Your task to perform on an android device: refresh tabs in the chrome app Image 0: 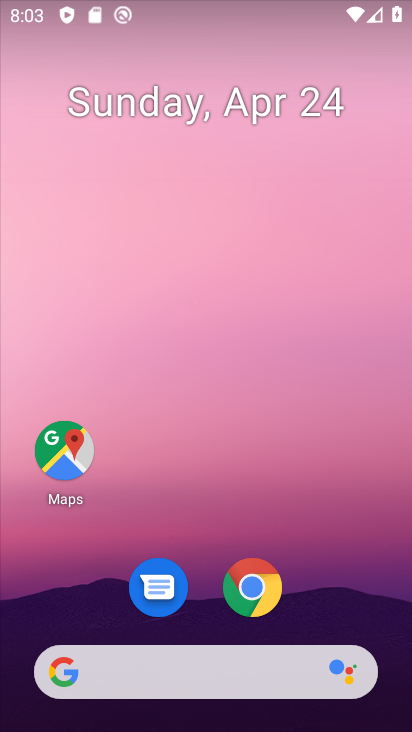
Step 0: drag from (343, 537) to (338, 240)
Your task to perform on an android device: refresh tabs in the chrome app Image 1: 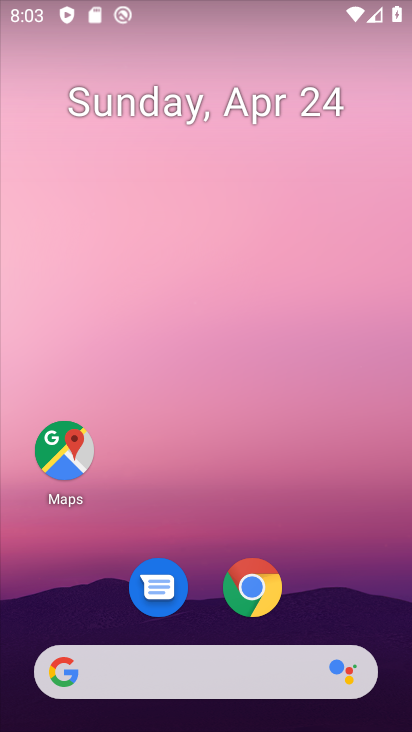
Step 1: drag from (325, 259) to (326, 81)
Your task to perform on an android device: refresh tabs in the chrome app Image 2: 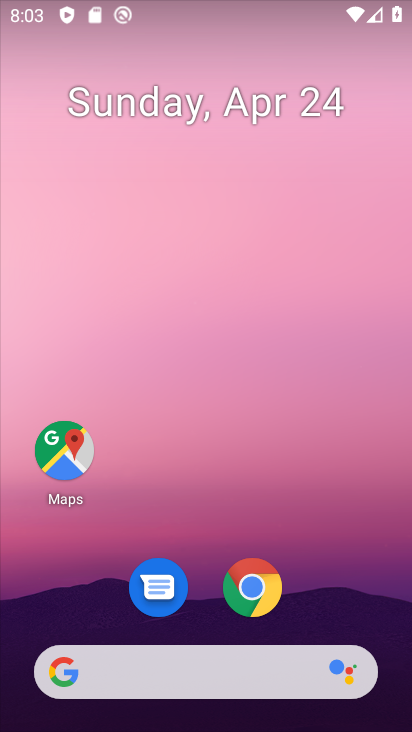
Step 2: drag from (322, 563) to (334, 125)
Your task to perform on an android device: refresh tabs in the chrome app Image 3: 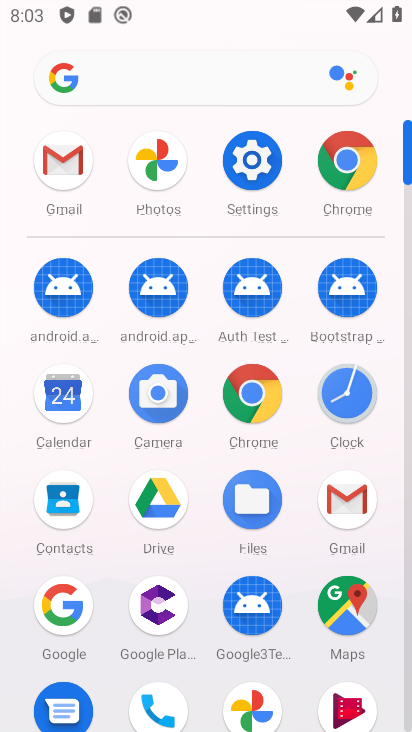
Step 3: click (359, 174)
Your task to perform on an android device: refresh tabs in the chrome app Image 4: 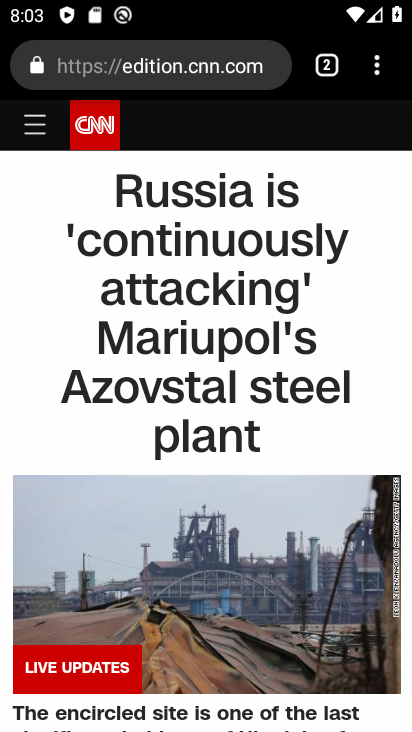
Step 4: click (385, 82)
Your task to perform on an android device: refresh tabs in the chrome app Image 5: 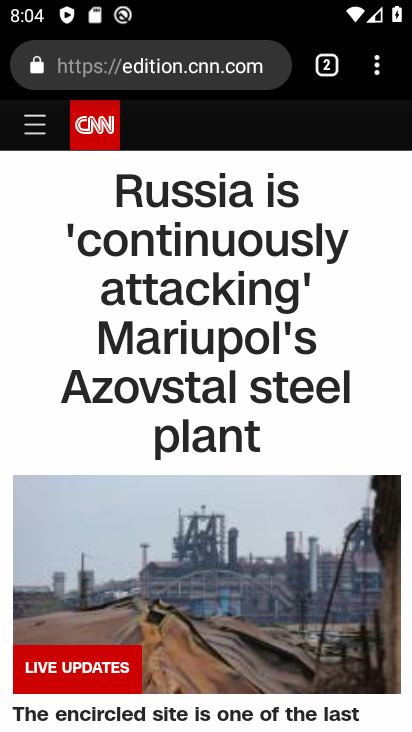
Step 5: task complete